Your task to perform on an android device: turn off data saver in the chrome app Image 0: 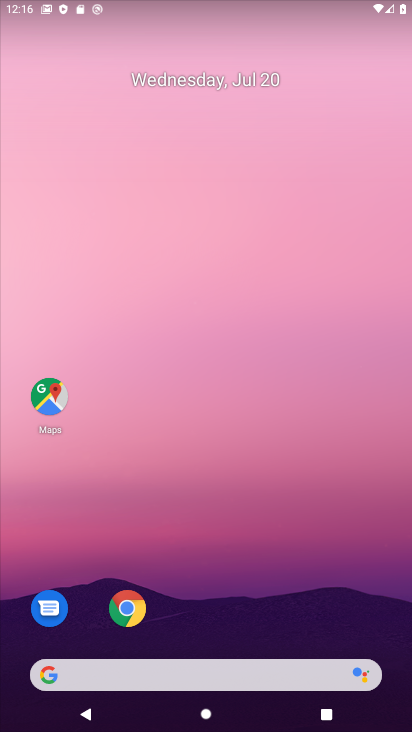
Step 0: click (129, 604)
Your task to perform on an android device: turn off data saver in the chrome app Image 1: 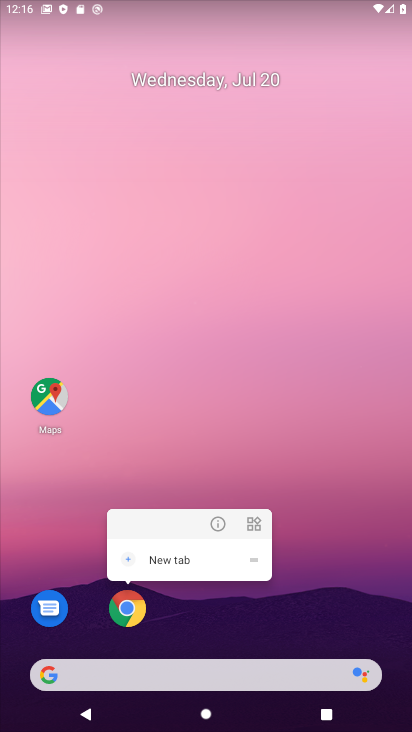
Step 1: click (135, 609)
Your task to perform on an android device: turn off data saver in the chrome app Image 2: 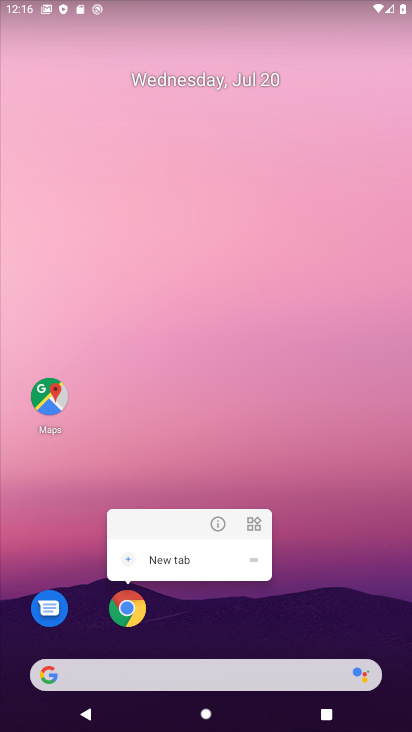
Step 2: click (130, 606)
Your task to perform on an android device: turn off data saver in the chrome app Image 3: 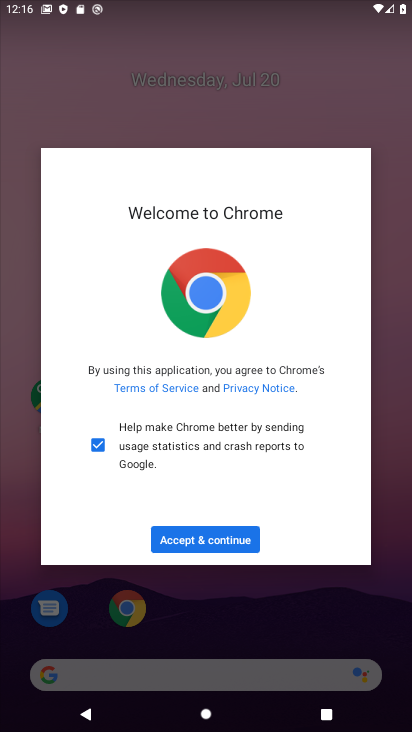
Step 3: click (239, 540)
Your task to perform on an android device: turn off data saver in the chrome app Image 4: 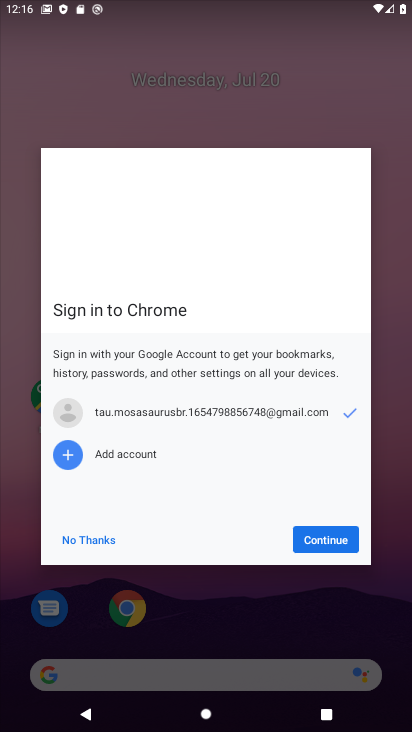
Step 4: click (340, 545)
Your task to perform on an android device: turn off data saver in the chrome app Image 5: 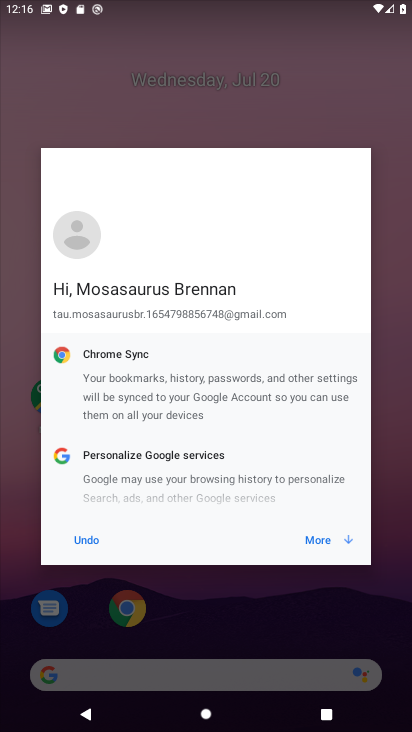
Step 5: click (325, 533)
Your task to perform on an android device: turn off data saver in the chrome app Image 6: 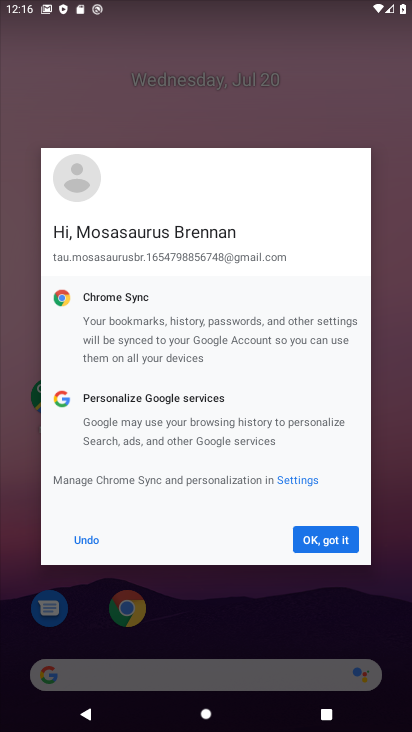
Step 6: click (325, 545)
Your task to perform on an android device: turn off data saver in the chrome app Image 7: 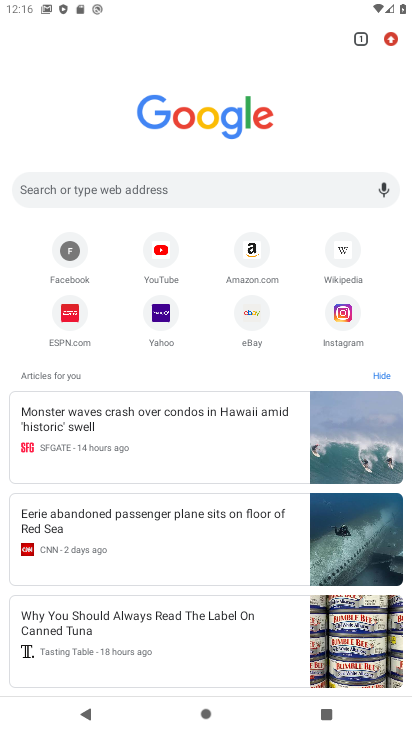
Step 7: click (397, 39)
Your task to perform on an android device: turn off data saver in the chrome app Image 8: 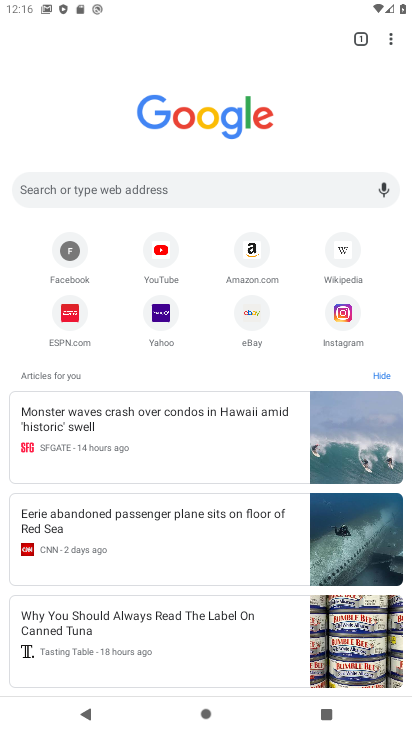
Step 8: click (388, 31)
Your task to perform on an android device: turn off data saver in the chrome app Image 9: 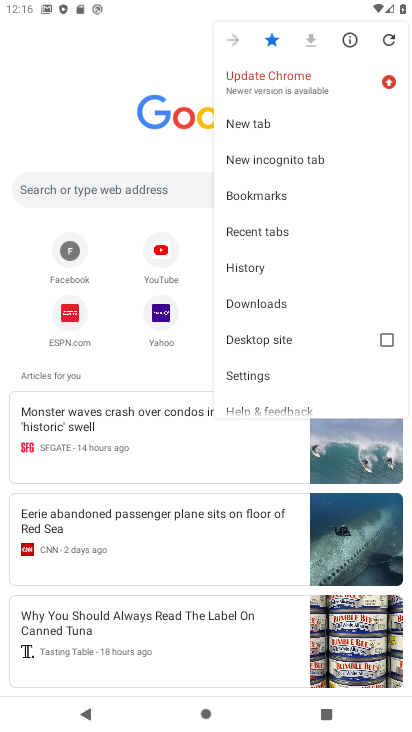
Step 9: click (229, 377)
Your task to perform on an android device: turn off data saver in the chrome app Image 10: 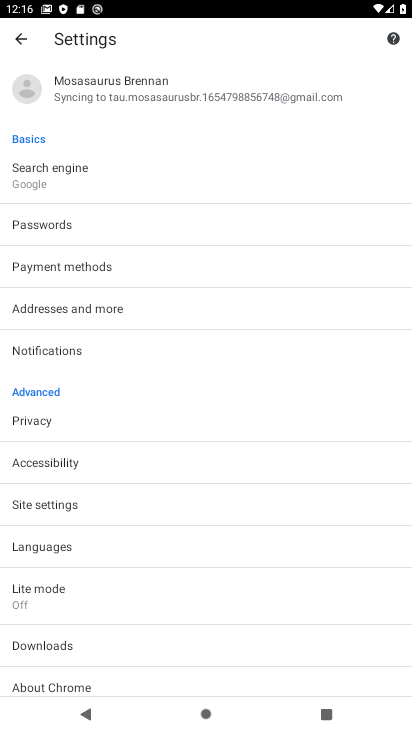
Step 10: click (45, 502)
Your task to perform on an android device: turn off data saver in the chrome app Image 11: 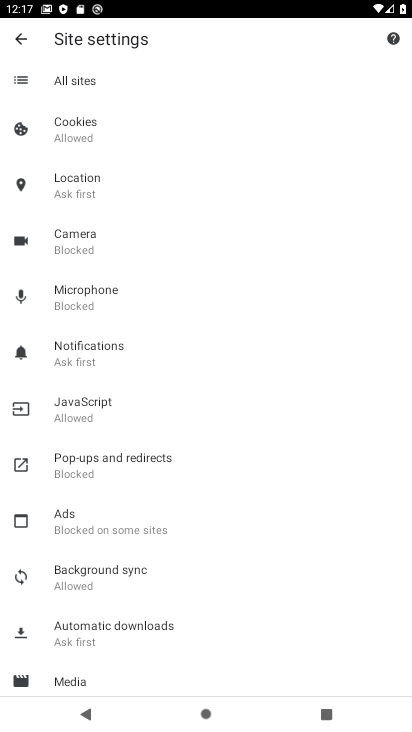
Step 11: drag from (102, 629) to (92, 270)
Your task to perform on an android device: turn off data saver in the chrome app Image 12: 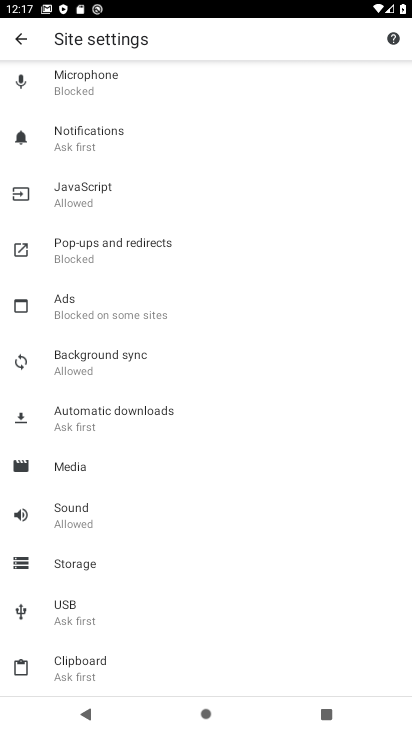
Step 12: drag from (110, 72) to (108, 503)
Your task to perform on an android device: turn off data saver in the chrome app Image 13: 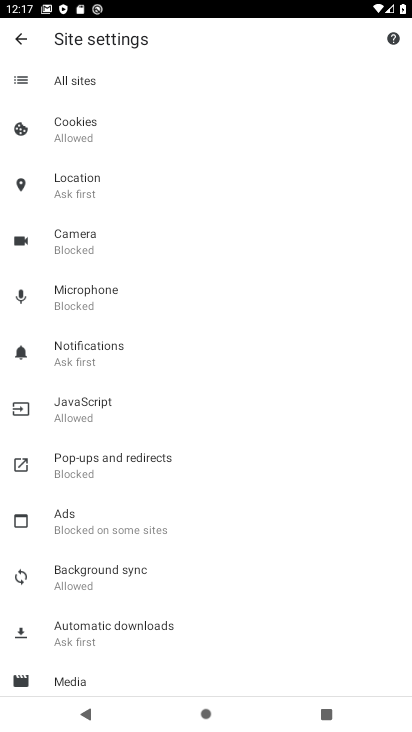
Step 13: click (25, 31)
Your task to perform on an android device: turn off data saver in the chrome app Image 14: 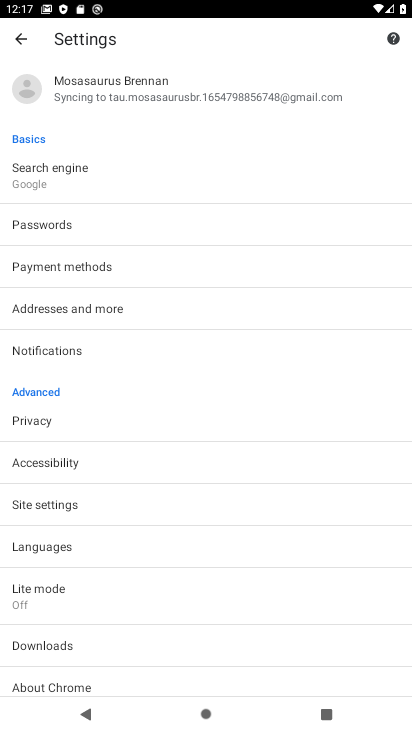
Step 14: click (37, 597)
Your task to perform on an android device: turn off data saver in the chrome app Image 15: 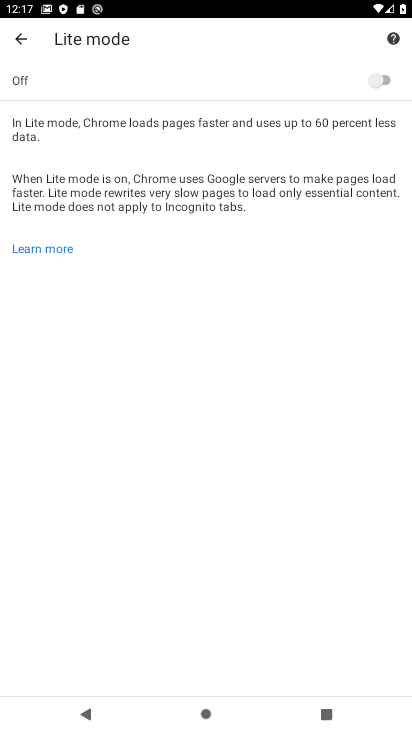
Step 15: task complete